Your task to perform on an android device: delete a single message in the gmail app Image 0: 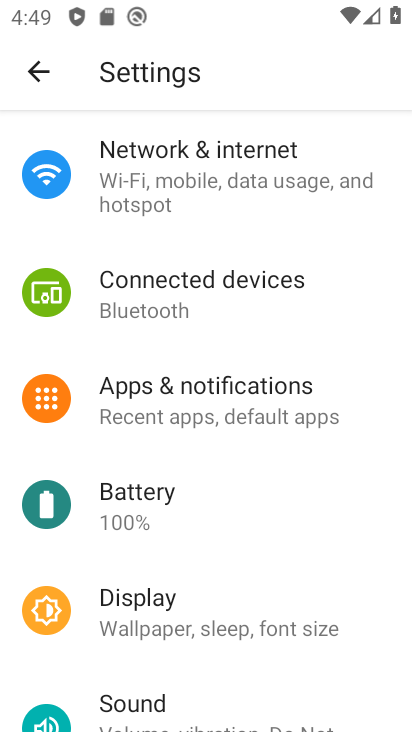
Step 0: press home button
Your task to perform on an android device: delete a single message in the gmail app Image 1: 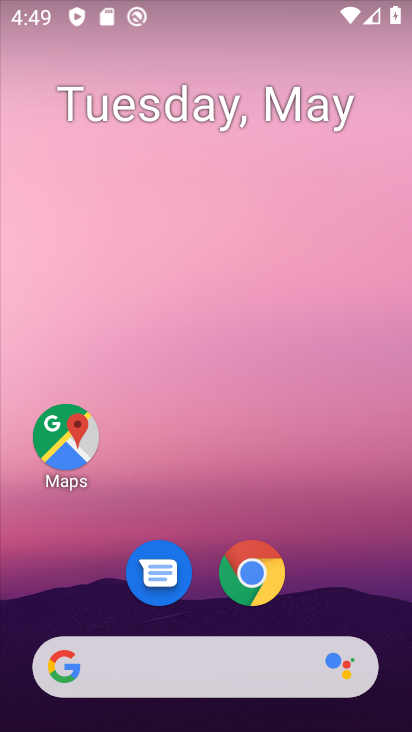
Step 1: drag from (221, 351) to (212, 282)
Your task to perform on an android device: delete a single message in the gmail app Image 2: 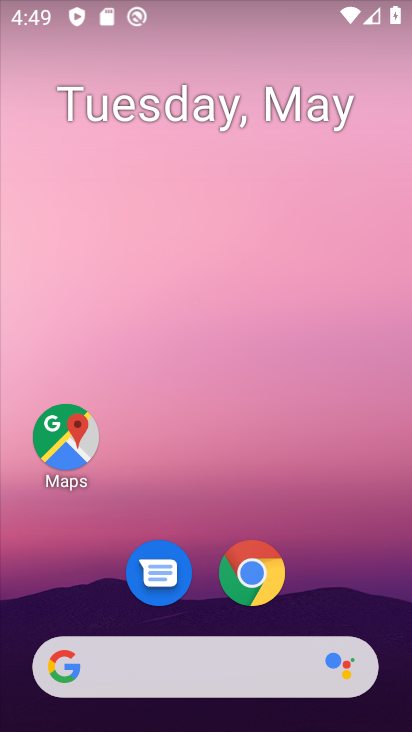
Step 2: drag from (201, 596) to (176, 218)
Your task to perform on an android device: delete a single message in the gmail app Image 3: 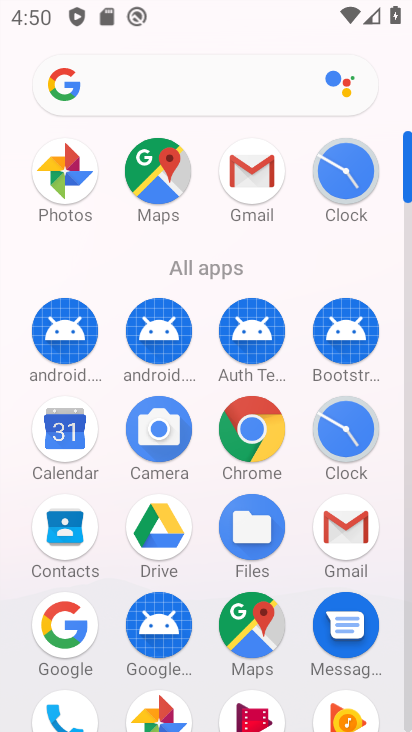
Step 3: click (260, 186)
Your task to perform on an android device: delete a single message in the gmail app Image 4: 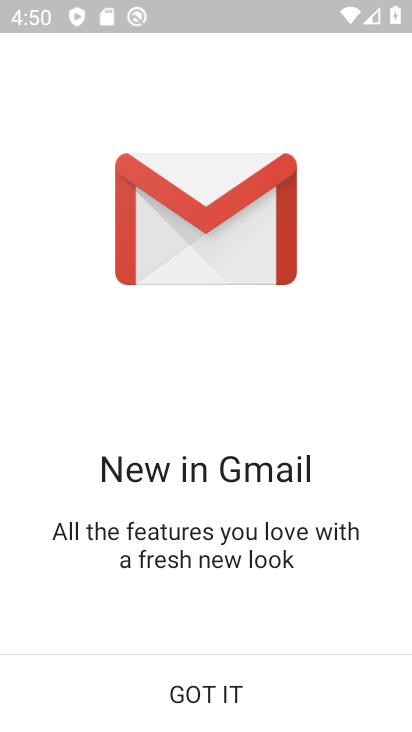
Step 4: click (173, 667)
Your task to perform on an android device: delete a single message in the gmail app Image 5: 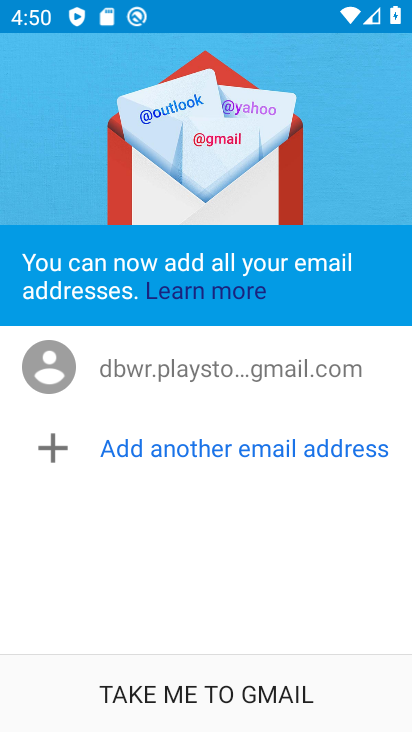
Step 5: click (257, 706)
Your task to perform on an android device: delete a single message in the gmail app Image 6: 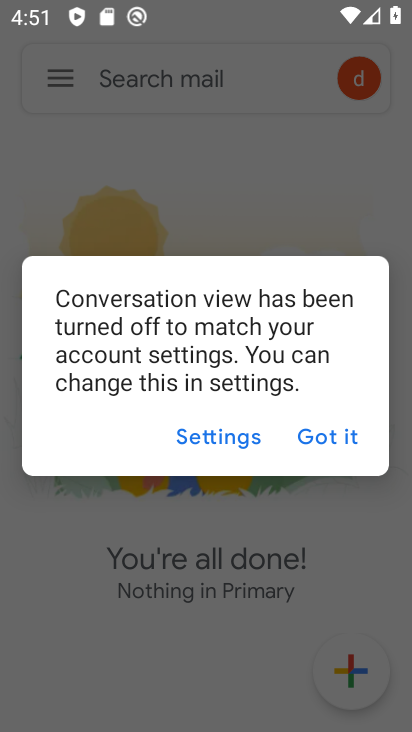
Step 6: task complete